Your task to perform on an android device: turn on showing notifications on the lock screen Image 0: 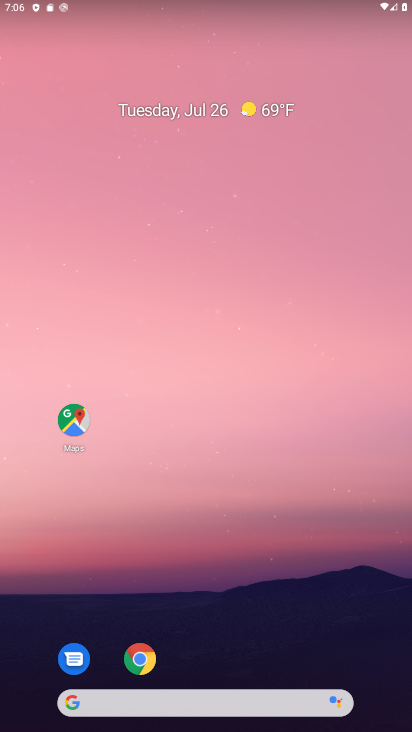
Step 0: drag from (241, 725) to (258, 205)
Your task to perform on an android device: turn on showing notifications on the lock screen Image 1: 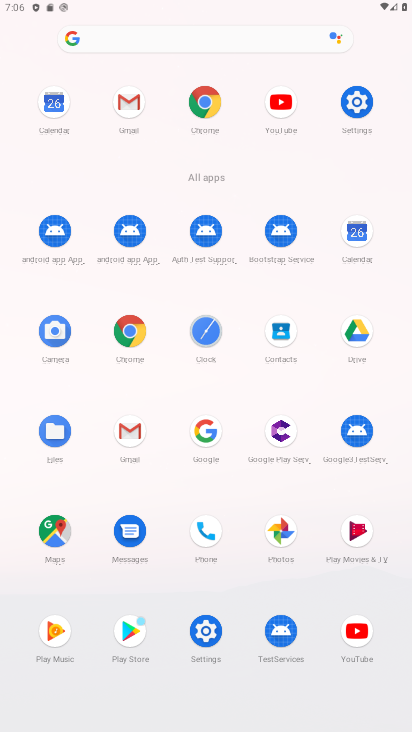
Step 1: click (354, 112)
Your task to perform on an android device: turn on showing notifications on the lock screen Image 2: 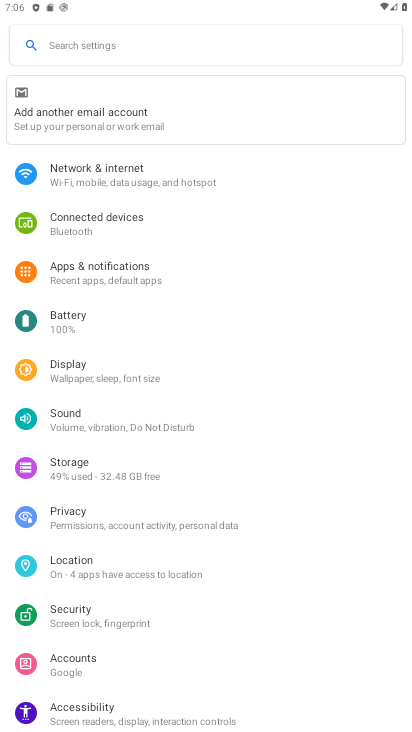
Step 2: click (94, 52)
Your task to perform on an android device: turn on showing notifications on the lock screen Image 3: 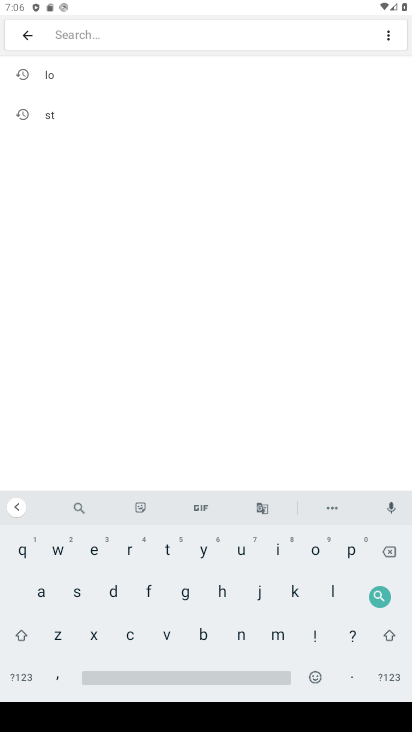
Step 3: click (232, 642)
Your task to perform on an android device: turn on showing notifications on the lock screen Image 4: 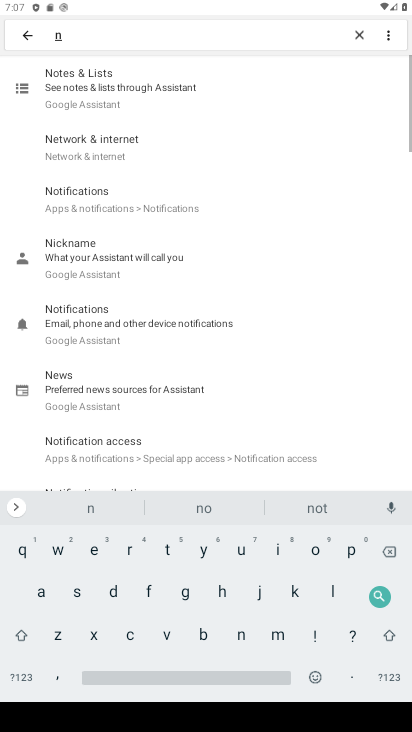
Step 4: click (318, 554)
Your task to perform on an android device: turn on showing notifications on the lock screen Image 5: 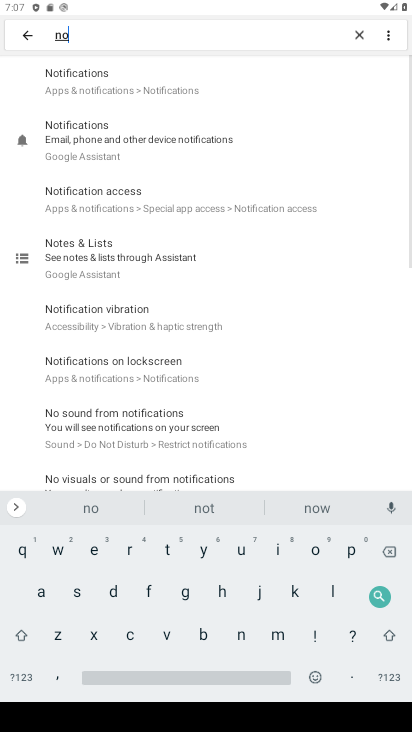
Step 5: click (127, 73)
Your task to perform on an android device: turn on showing notifications on the lock screen Image 6: 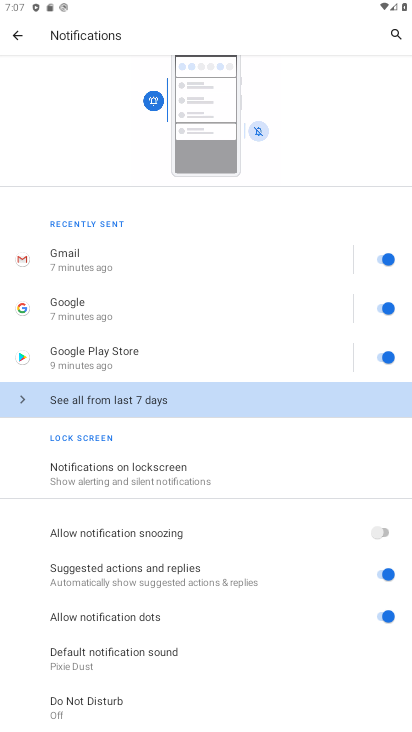
Step 6: click (99, 473)
Your task to perform on an android device: turn on showing notifications on the lock screen Image 7: 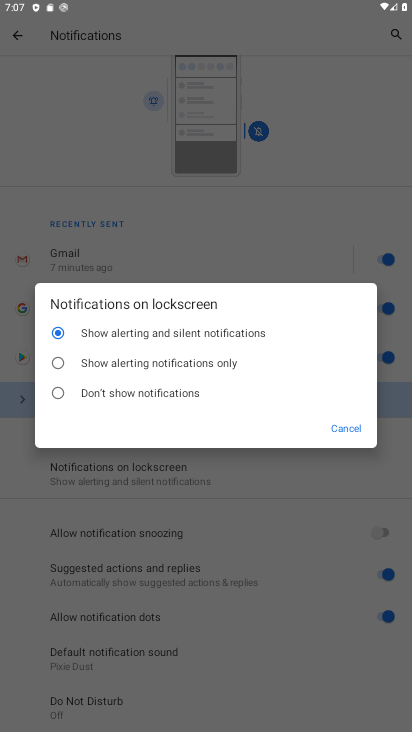
Step 7: task complete